Your task to perform on an android device: Show me recent news Image 0: 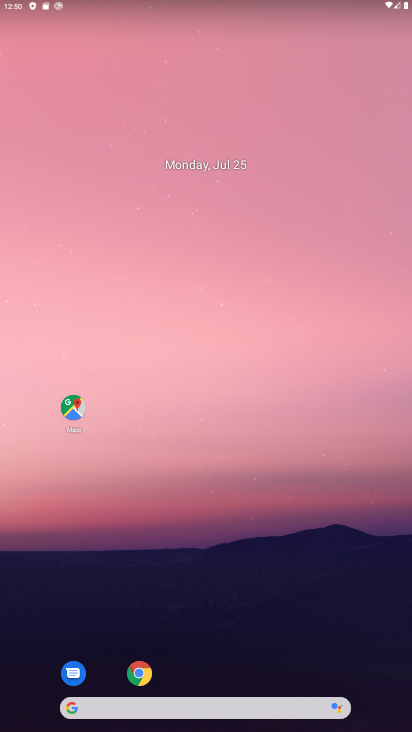
Step 0: drag from (3, 294) to (399, 309)
Your task to perform on an android device: Show me recent news Image 1: 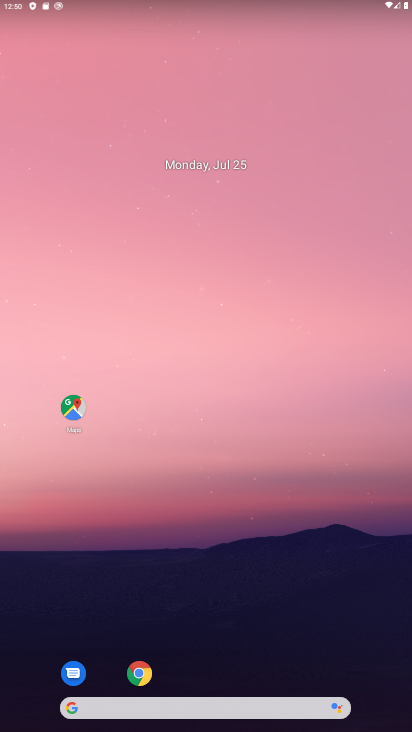
Step 1: task complete